Your task to perform on an android device: What's on my calendar today? Image 0: 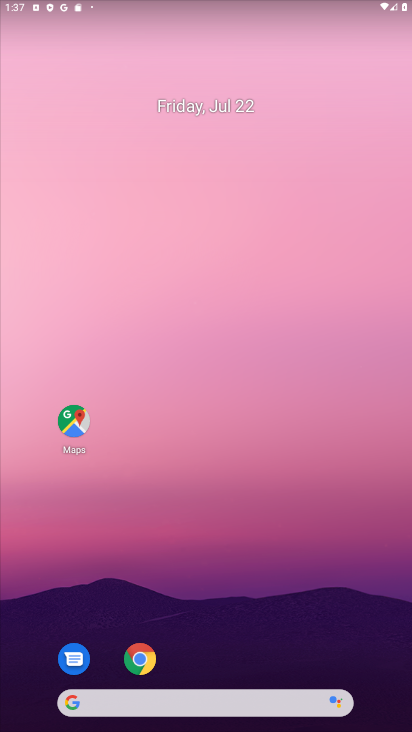
Step 0: drag from (183, 715) to (326, 235)
Your task to perform on an android device: What's on my calendar today? Image 1: 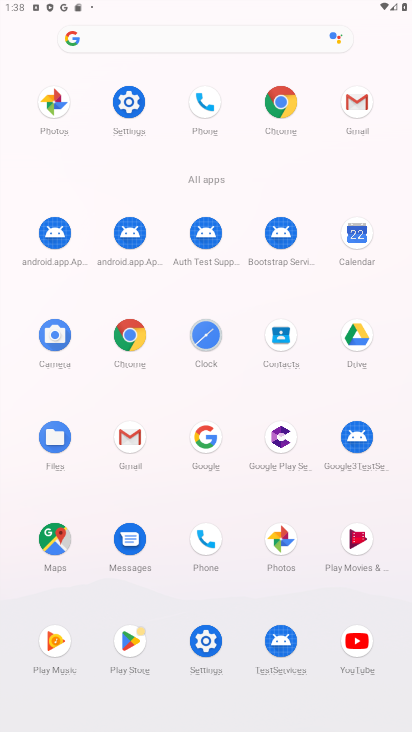
Step 1: click (348, 237)
Your task to perform on an android device: What's on my calendar today? Image 2: 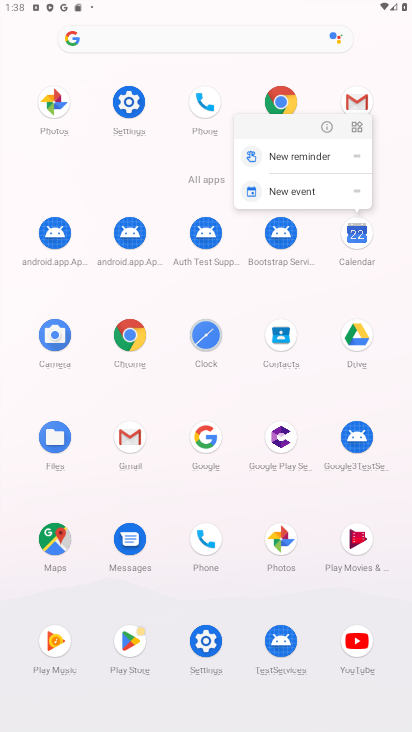
Step 2: click (355, 233)
Your task to perform on an android device: What's on my calendar today? Image 3: 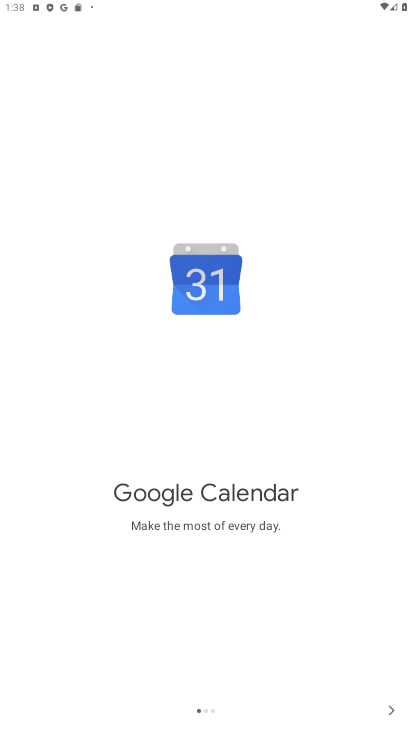
Step 3: click (394, 704)
Your task to perform on an android device: What's on my calendar today? Image 4: 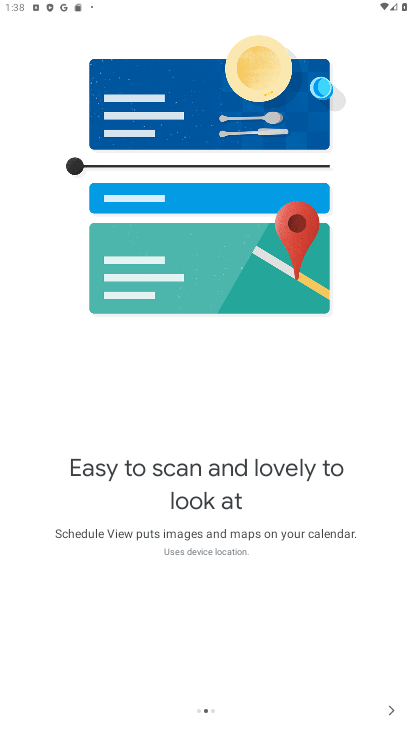
Step 4: click (391, 712)
Your task to perform on an android device: What's on my calendar today? Image 5: 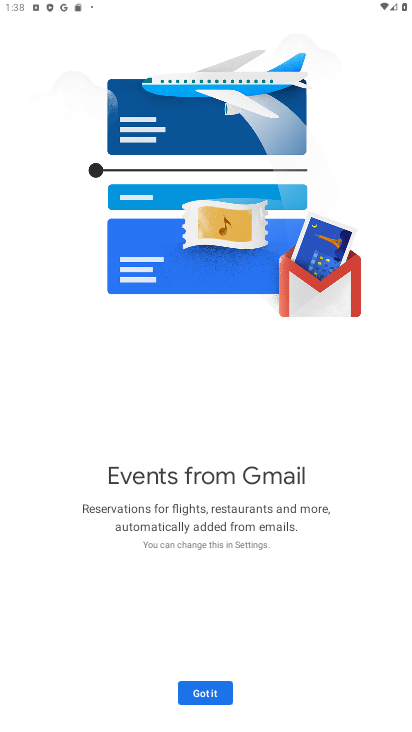
Step 5: click (220, 678)
Your task to perform on an android device: What's on my calendar today? Image 6: 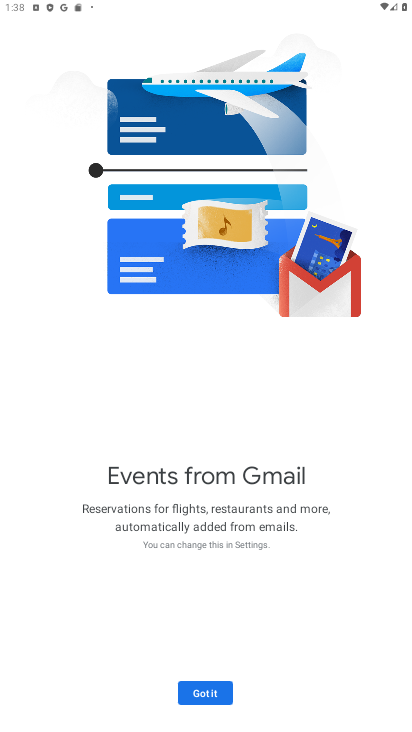
Step 6: click (226, 694)
Your task to perform on an android device: What's on my calendar today? Image 7: 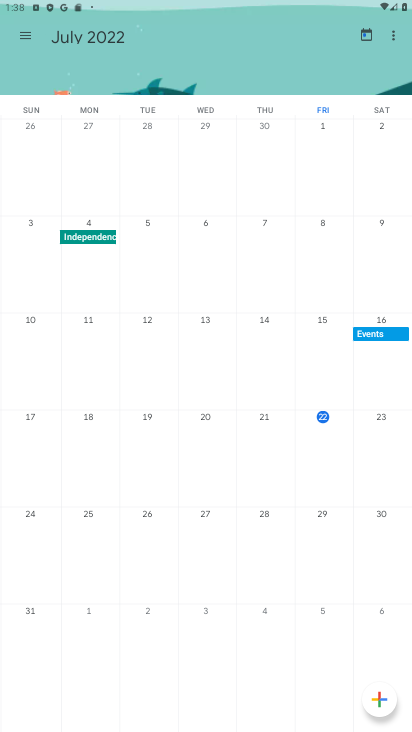
Step 7: drag from (387, 424) to (0, 389)
Your task to perform on an android device: What's on my calendar today? Image 8: 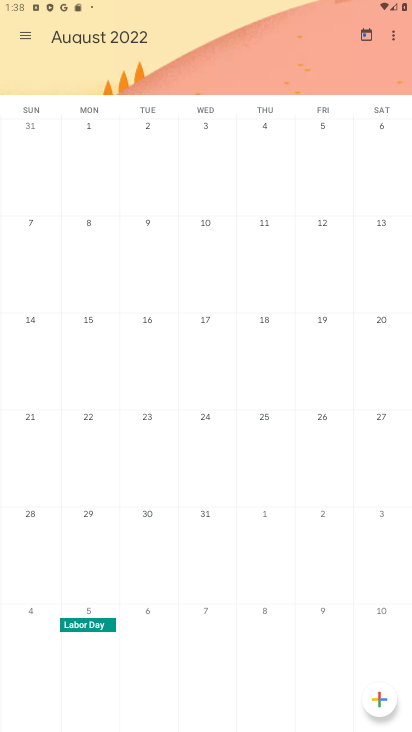
Step 8: drag from (57, 365) to (385, 355)
Your task to perform on an android device: What's on my calendar today? Image 9: 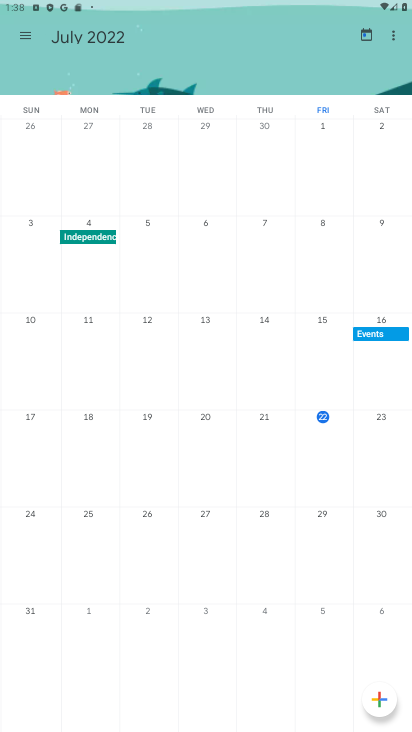
Step 9: click (317, 447)
Your task to perform on an android device: What's on my calendar today? Image 10: 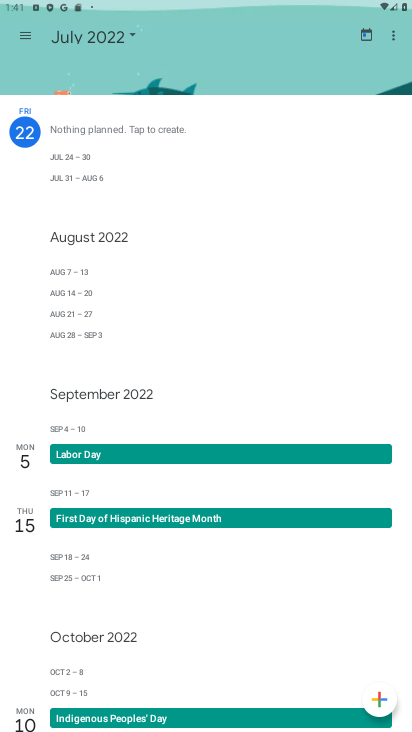
Step 10: task complete